Your task to perform on an android device: Go to Yahoo.com Image 0: 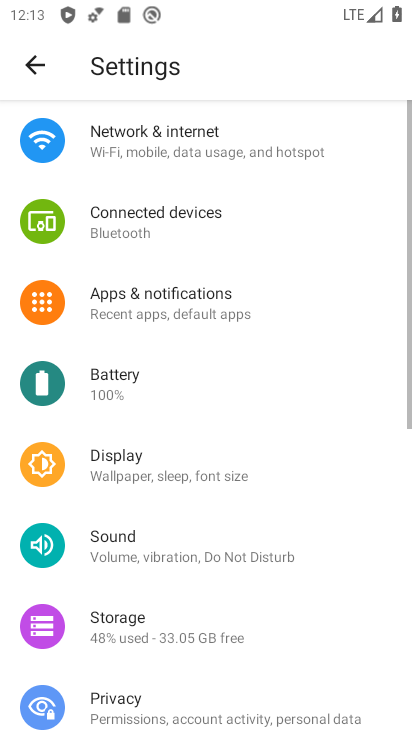
Step 0: press home button
Your task to perform on an android device: Go to Yahoo.com Image 1: 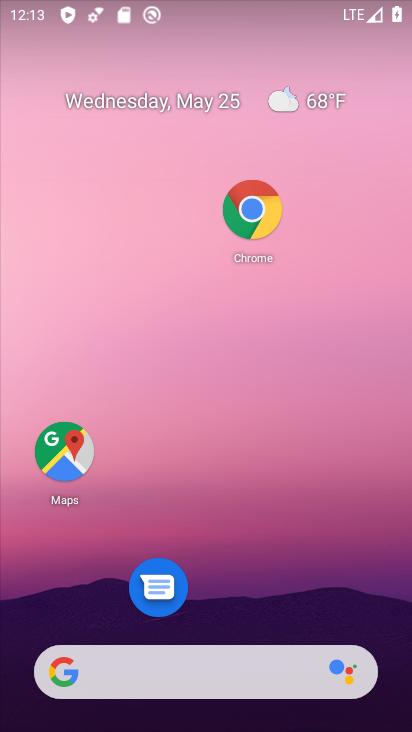
Step 1: drag from (228, 617) to (229, 128)
Your task to perform on an android device: Go to Yahoo.com Image 2: 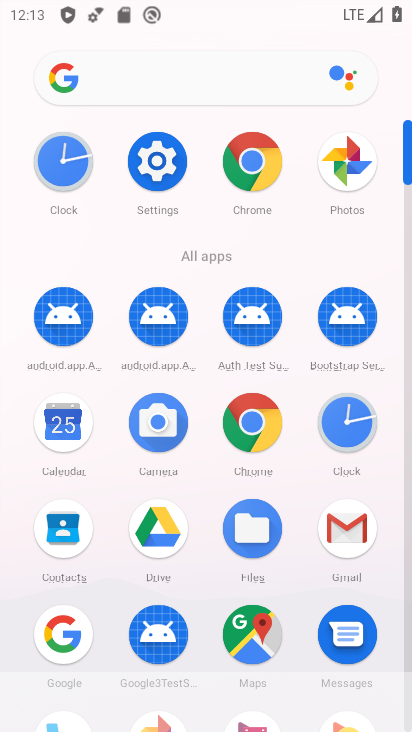
Step 2: click (249, 147)
Your task to perform on an android device: Go to Yahoo.com Image 3: 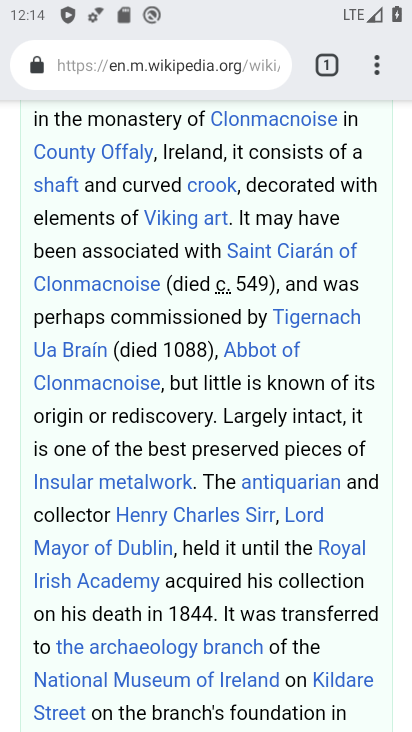
Step 3: click (329, 58)
Your task to perform on an android device: Go to Yahoo.com Image 4: 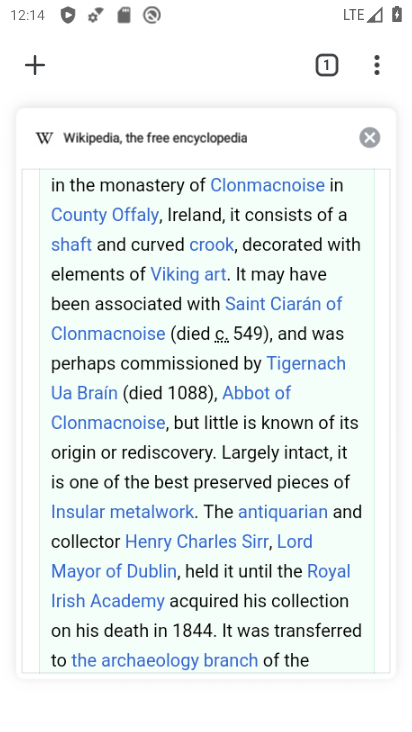
Step 4: click (369, 131)
Your task to perform on an android device: Go to Yahoo.com Image 5: 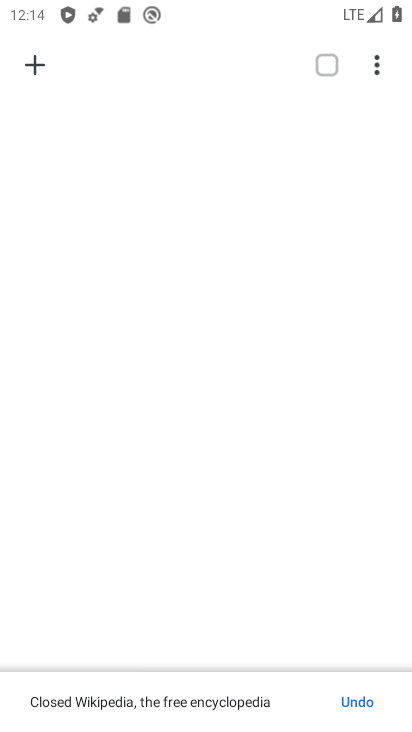
Step 5: click (42, 66)
Your task to perform on an android device: Go to Yahoo.com Image 6: 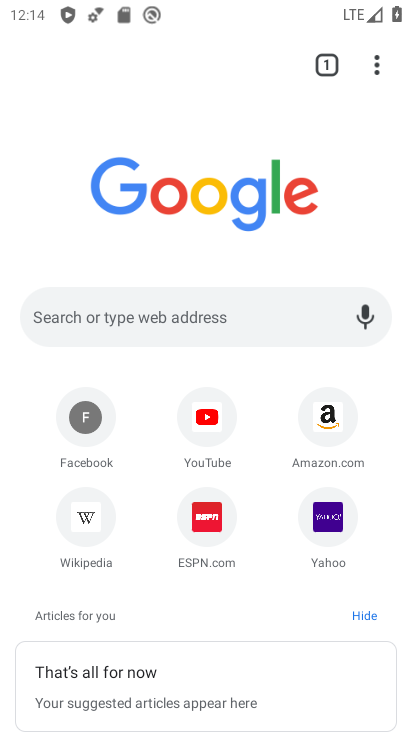
Step 6: click (326, 514)
Your task to perform on an android device: Go to Yahoo.com Image 7: 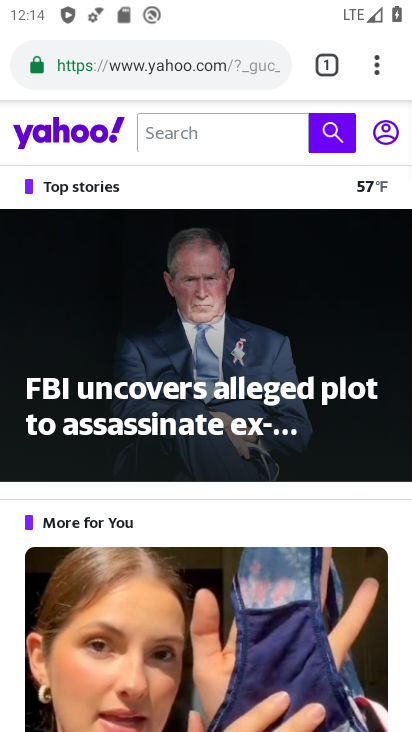
Step 7: task complete